Your task to perform on an android device: turn on showing notifications on the lock screen Image 0: 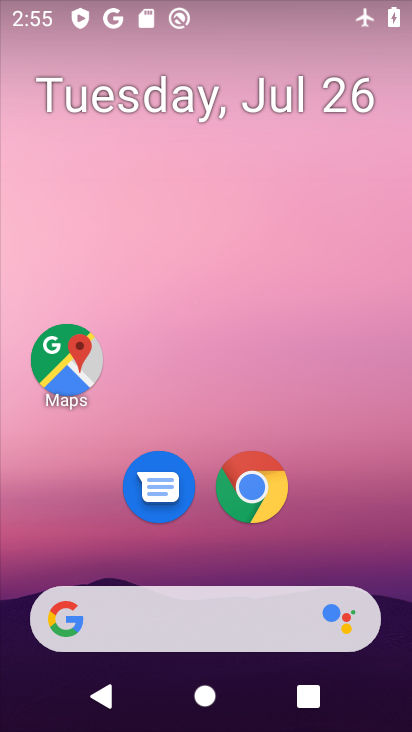
Step 0: drag from (149, 547) to (307, 25)
Your task to perform on an android device: turn on showing notifications on the lock screen Image 1: 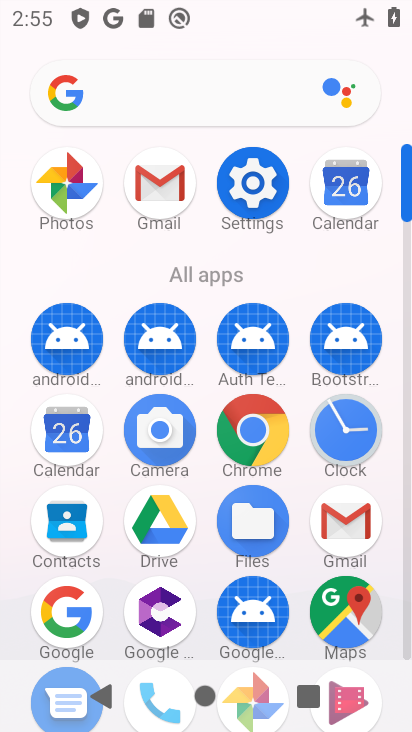
Step 1: click (245, 169)
Your task to perform on an android device: turn on showing notifications on the lock screen Image 2: 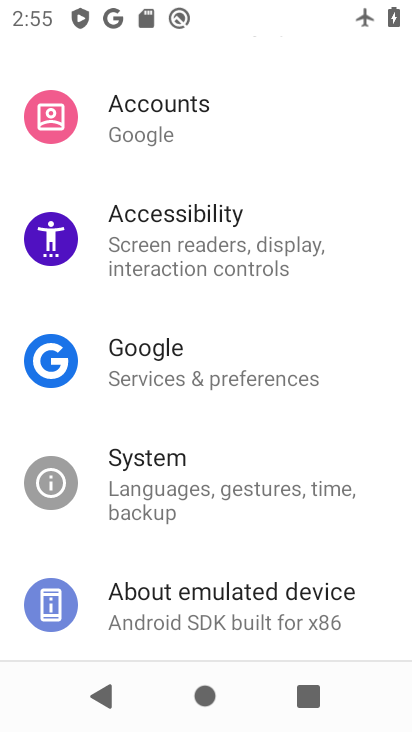
Step 2: drag from (276, 163) to (240, 609)
Your task to perform on an android device: turn on showing notifications on the lock screen Image 3: 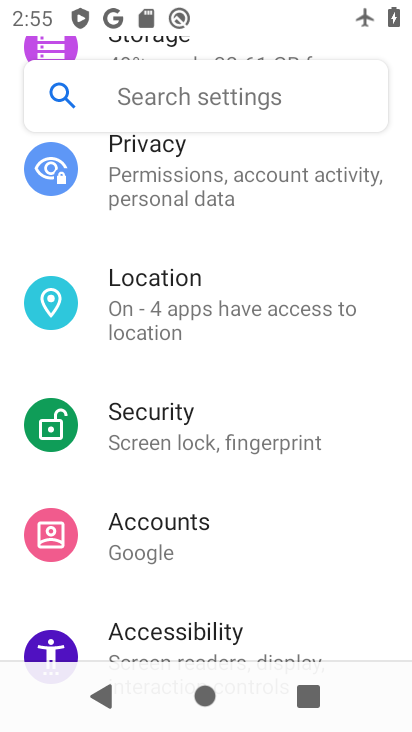
Step 3: drag from (272, 202) to (224, 622)
Your task to perform on an android device: turn on showing notifications on the lock screen Image 4: 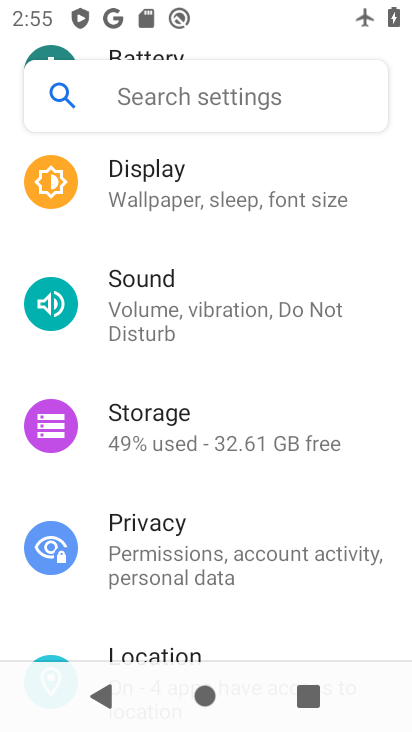
Step 4: drag from (249, 196) to (187, 691)
Your task to perform on an android device: turn on showing notifications on the lock screen Image 5: 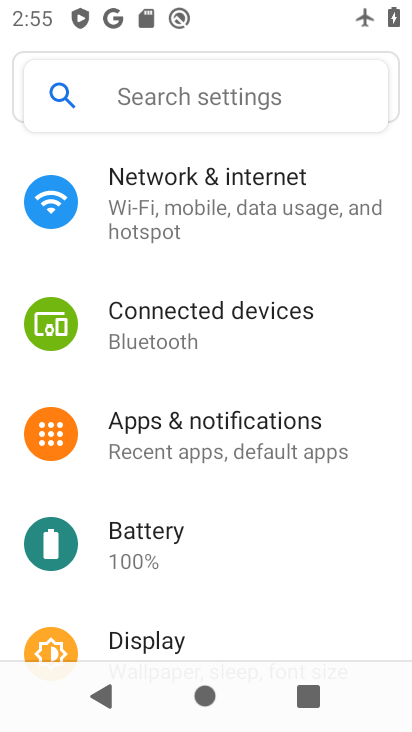
Step 5: click (241, 431)
Your task to perform on an android device: turn on showing notifications on the lock screen Image 6: 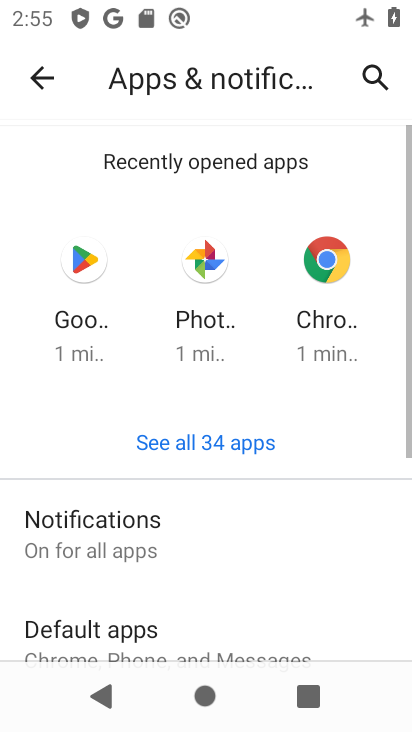
Step 6: click (128, 546)
Your task to perform on an android device: turn on showing notifications on the lock screen Image 7: 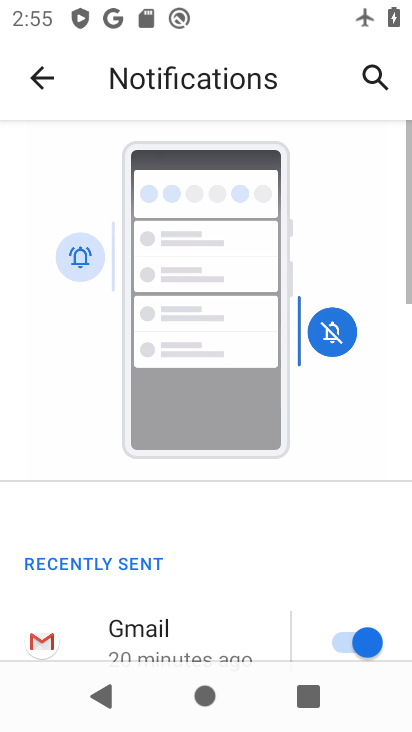
Step 7: drag from (161, 581) to (354, 20)
Your task to perform on an android device: turn on showing notifications on the lock screen Image 8: 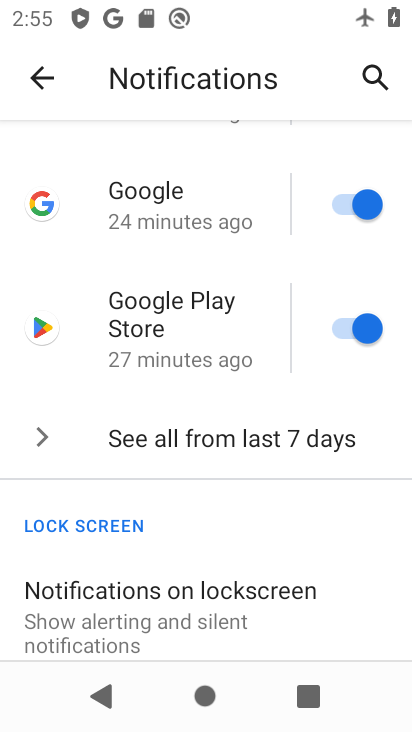
Step 8: drag from (176, 581) to (287, 172)
Your task to perform on an android device: turn on showing notifications on the lock screen Image 9: 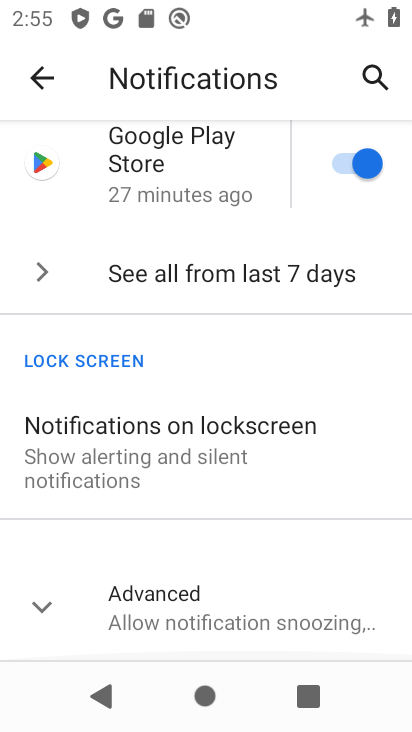
Step 9: click (144, 454)
Your task to perform on an android device: turn on showing notifications on the lock screen Image 10: 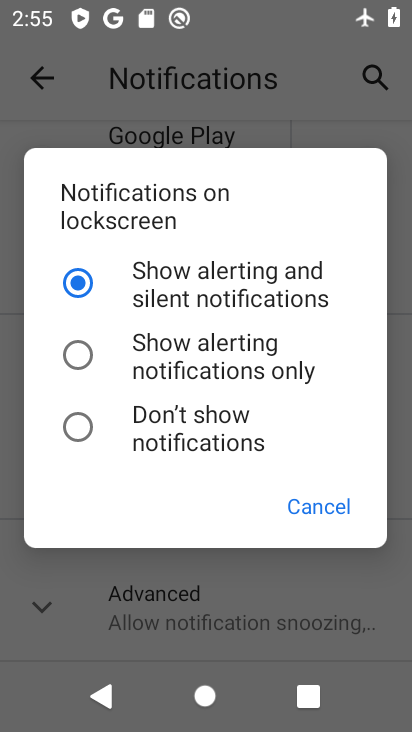
Step 10: task complete